Your task to perform on an android device: delete a single message in the gmail app Image 0: 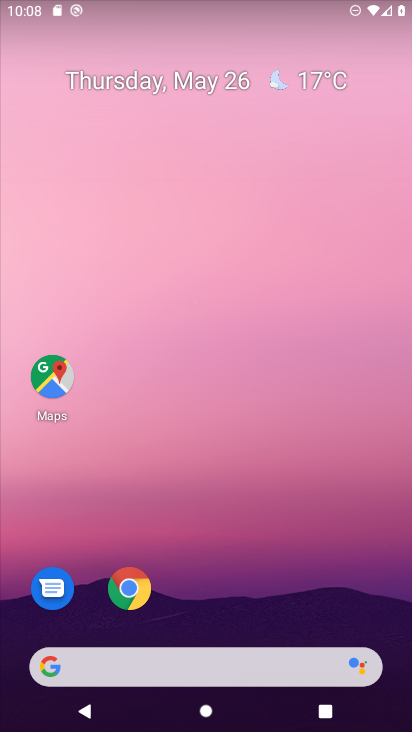
Step 0: drag from (371, 614) to (272, 12)
Your task to perform on an android device: delete a single message in the gmail app Image 1: 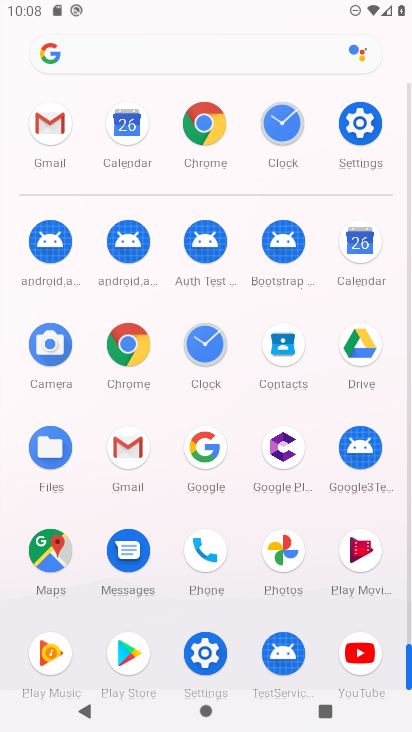
Step 1: click (124, 446)
Your task to perform on an android device: delete a single message in the gmail app Image 2: 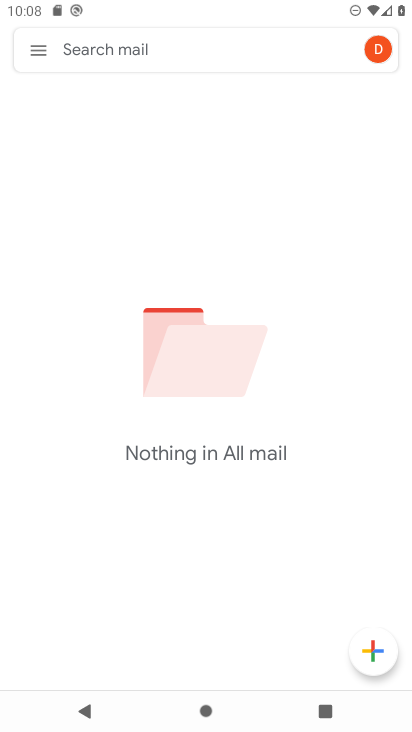
Step 2: click (33, 50)
Your task to perform on an android device: delete a single message in the gmail app Image 3: 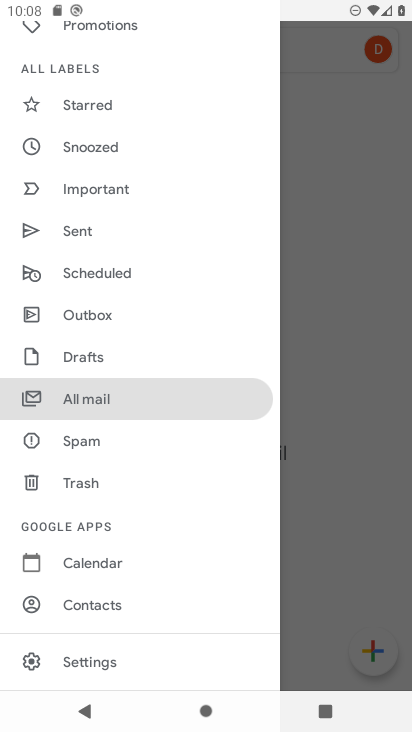
Step 3: click (98, 394)
Your task to perform on an android device: delete a single message in the gmail app Image 4: 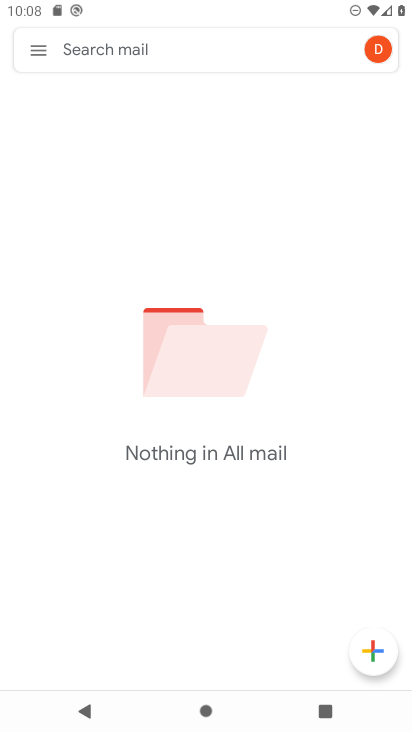
Step 4: task complete